Your task to perform on an android device: turn off improve location accuracy Image 0: 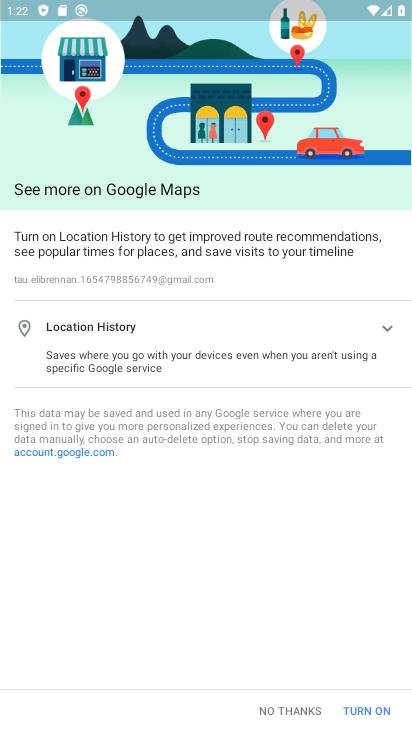
Step 0: press home button
Your task to perform on an android device: turn off improve location accuracy Image 1: 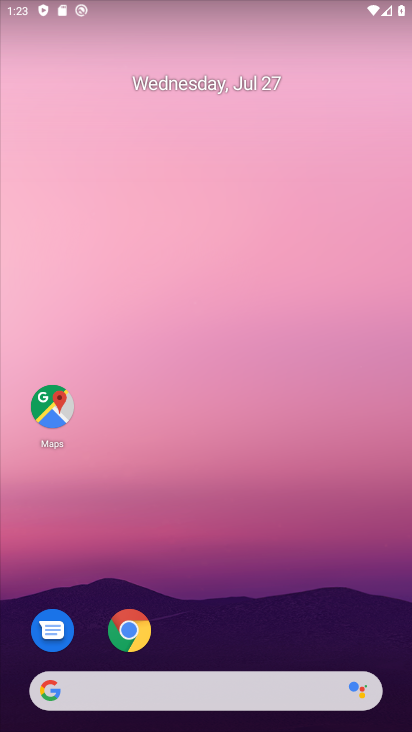
Step 1: drag from (365, 636) to (347, 179)
Your task to perform on an android device: turn off improve location accuracy Image 2: 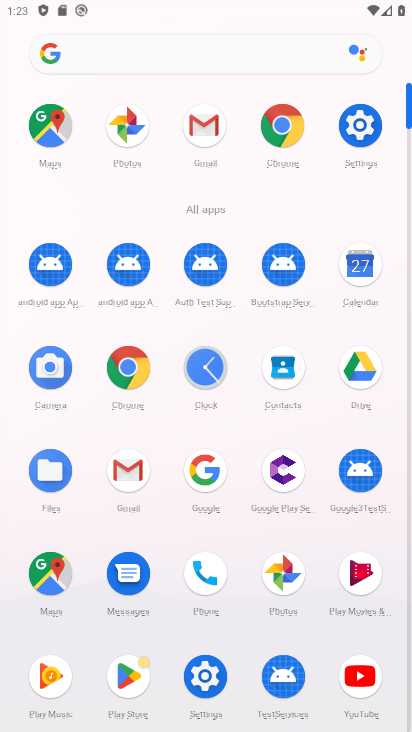
Step 2: click (204, 679)
Your task to perform on an android device: turn off improve location accuracy Image 3: 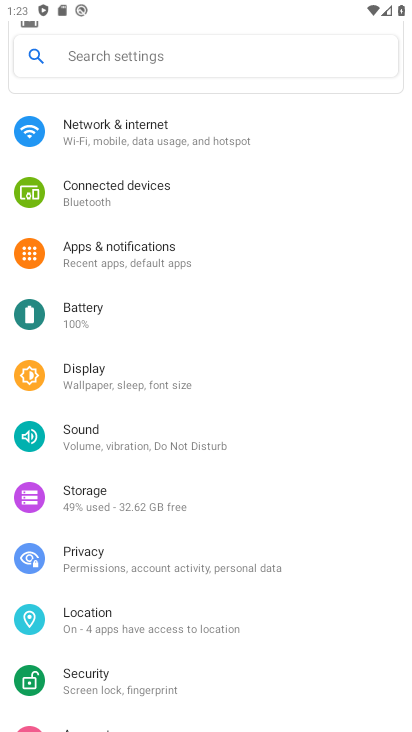
Step 3: click (87, 613)
Your task to perform on an android device: turn off improve location accuracy Image 4: 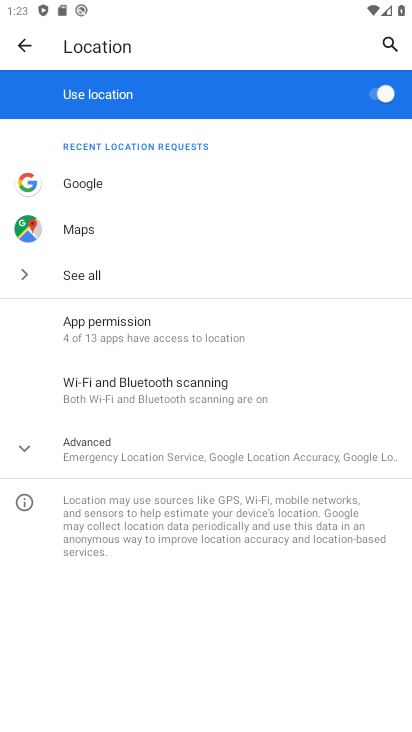
Step 4: click (24, 451)
Your task to perform on an android device: turn off improve location accuracy Image 5: 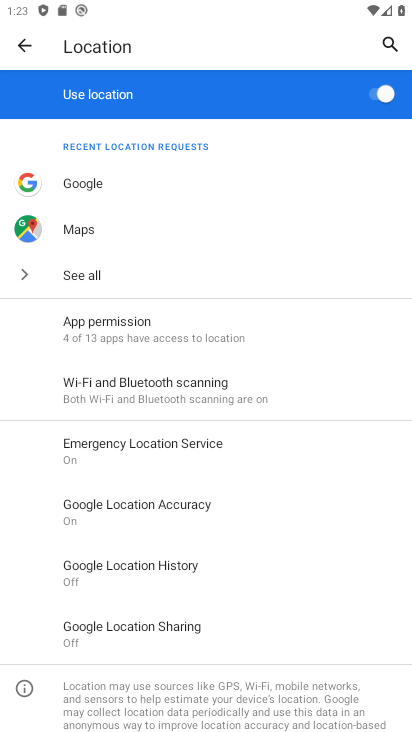
Step 5: click (112, 503)
Your task to perform on an android device: turn off improve location accuracy Image 6: 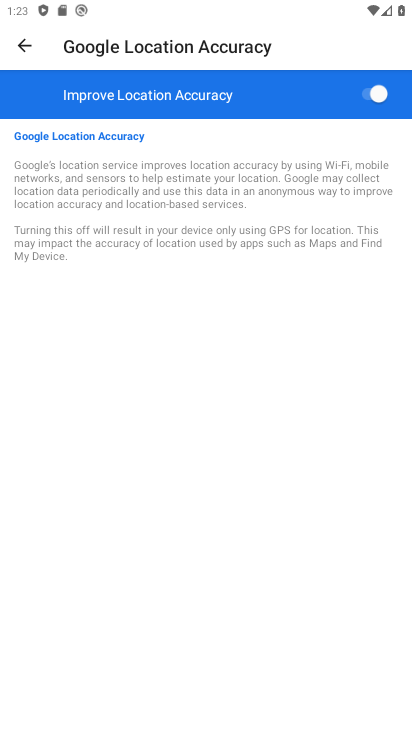
Step 6: click (366, 92)
Your task to perform on an android device: turn off improve location accuracy Image 7: 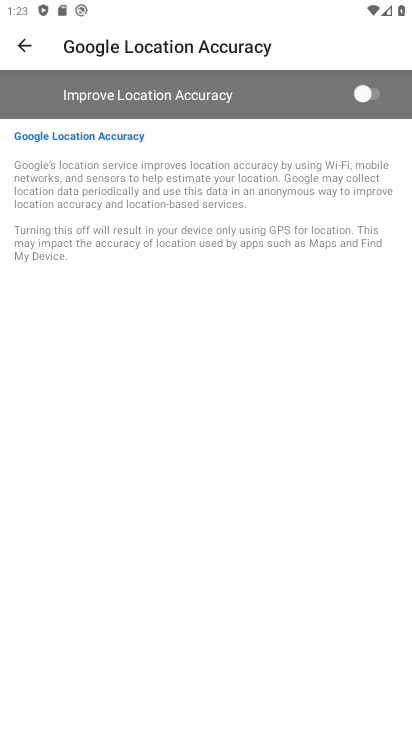
Step 7: task complete